Your task to perform on an android device: Check the weather Image 0: 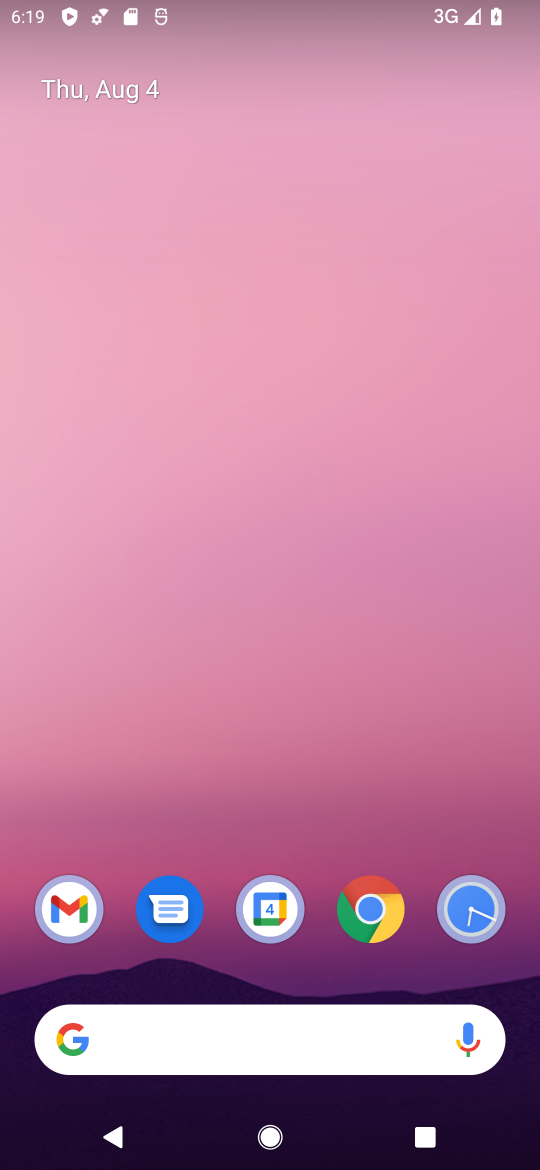
Step 0: drag from (389, 991) to (355, 42)
Your task to perform on an android device: Check the weather Image 1: 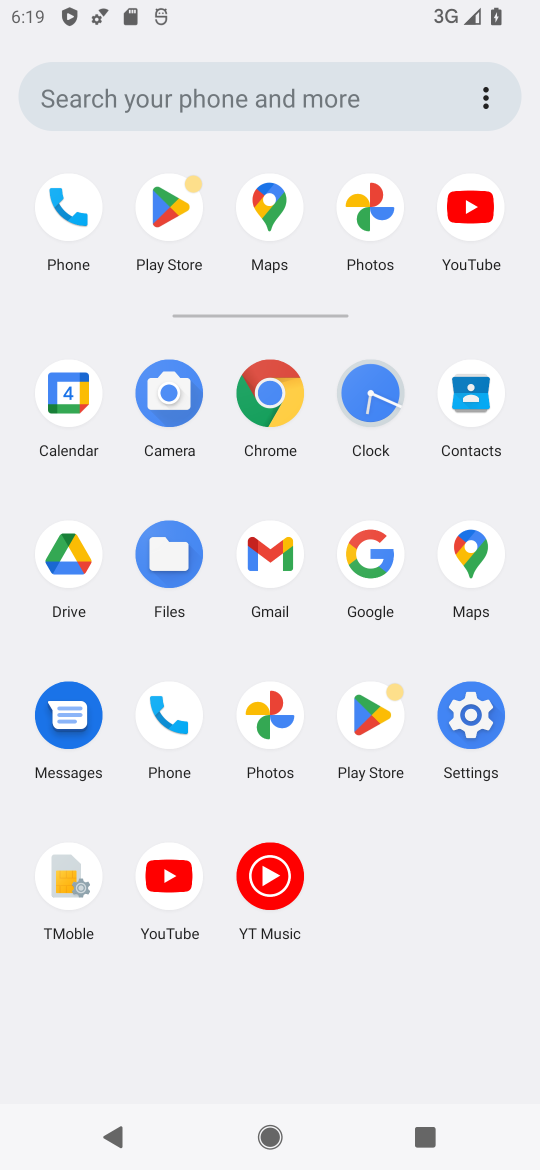
Step 1: click (370, 554)
Your task to perform on an android device: Check the weather Image 2: 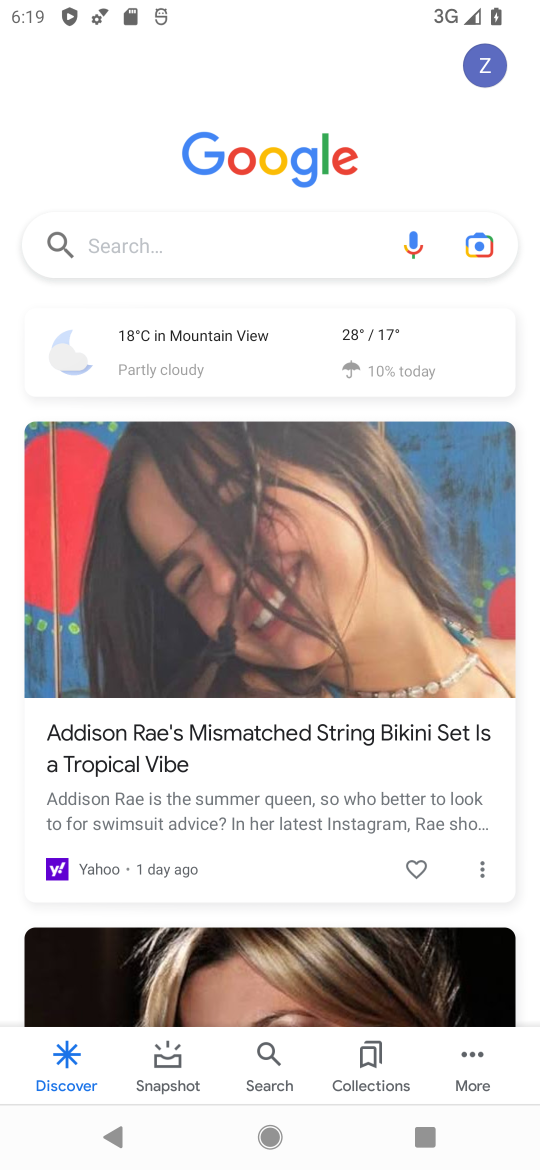
Step 2: drag from (396, 797) to (410, 384)
Your task to perform on an android device: Check the weather Image 3: 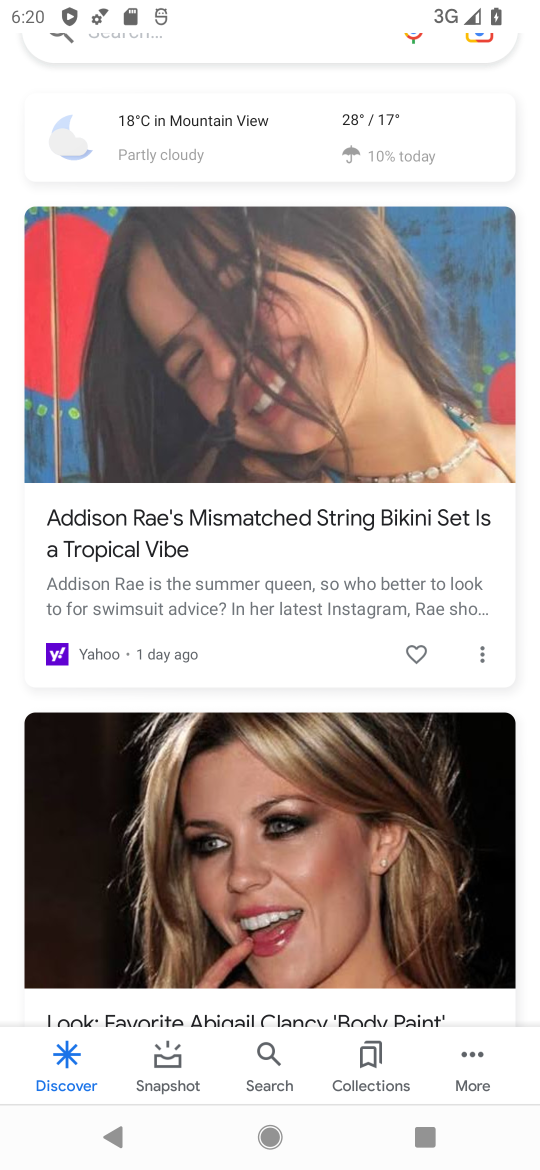
Step 3: drag from (372, 426) to (343, 928)
Your task to perform on an android device: Check the weather Image 4: 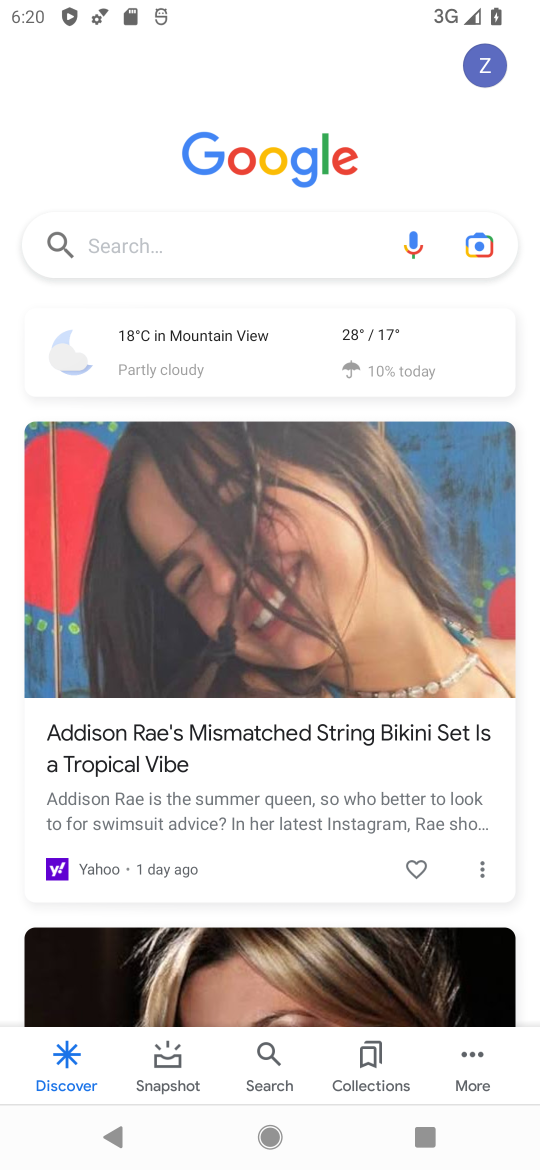
Step 4: click (237, 389)
Your task to perform on an android device: Check the weather Image 5: 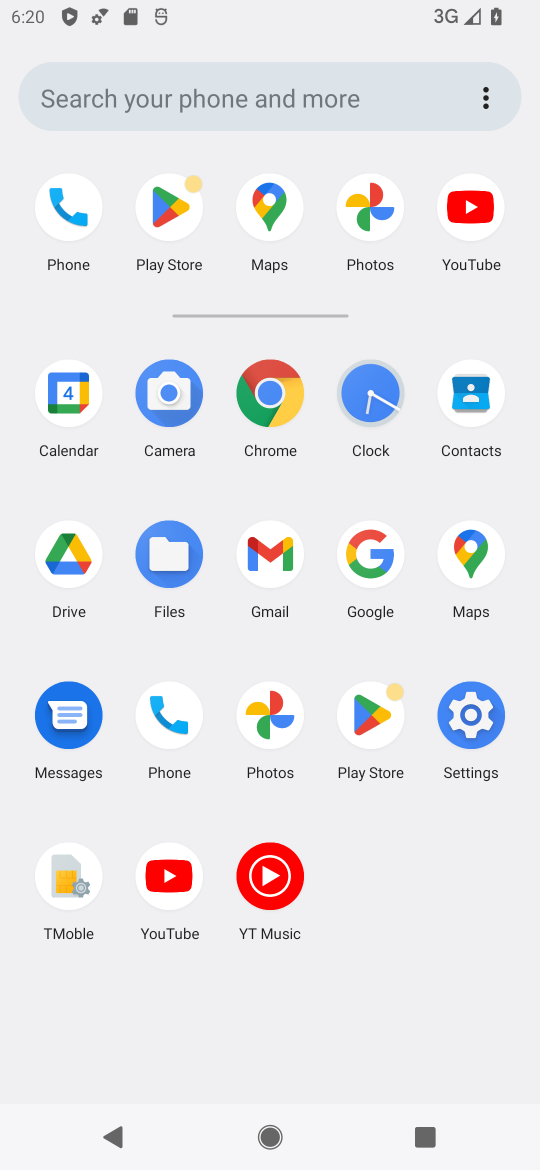
Step 5: click (287, 565)
Your task to perform on an android device: Check the weather Image 6: 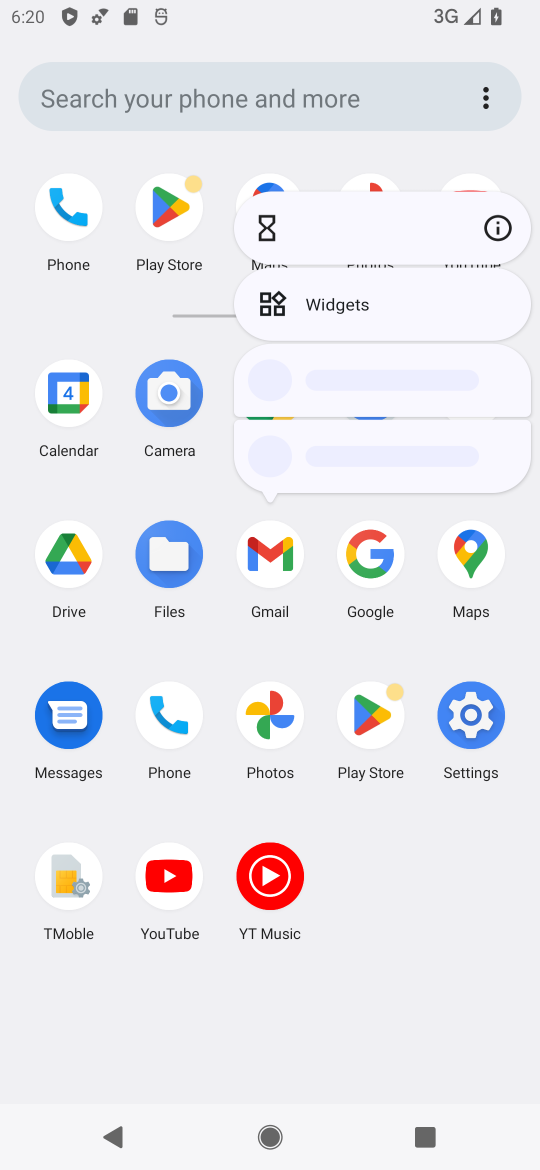
Step 6: click (342, 563)
Your task to perform on an android device: Check the weather Image 7: 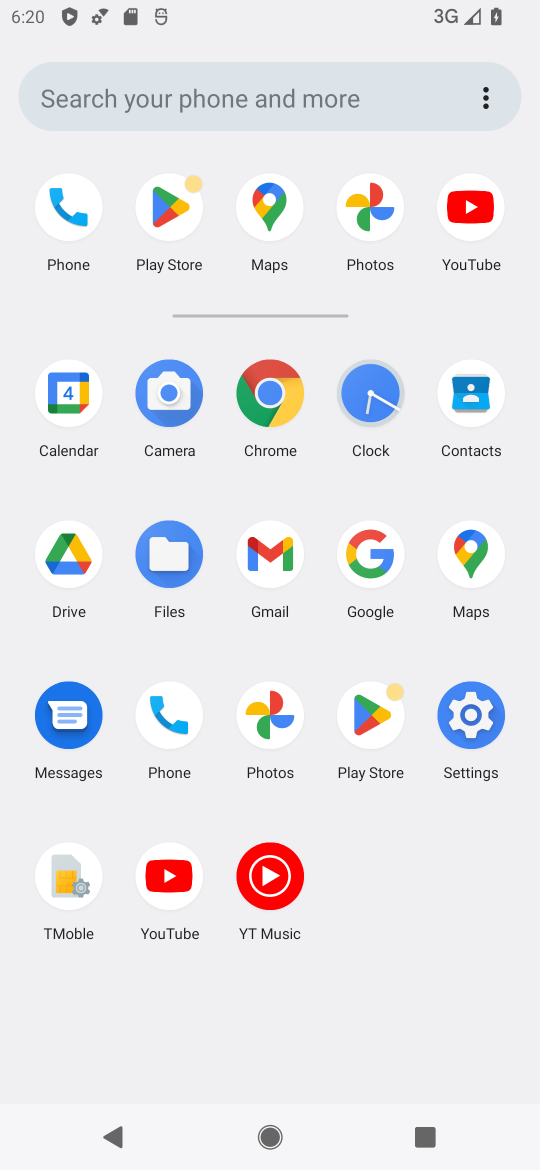
Step 7: click (358, 560)
Your task to perform on an android device: Check the weather Image 8: 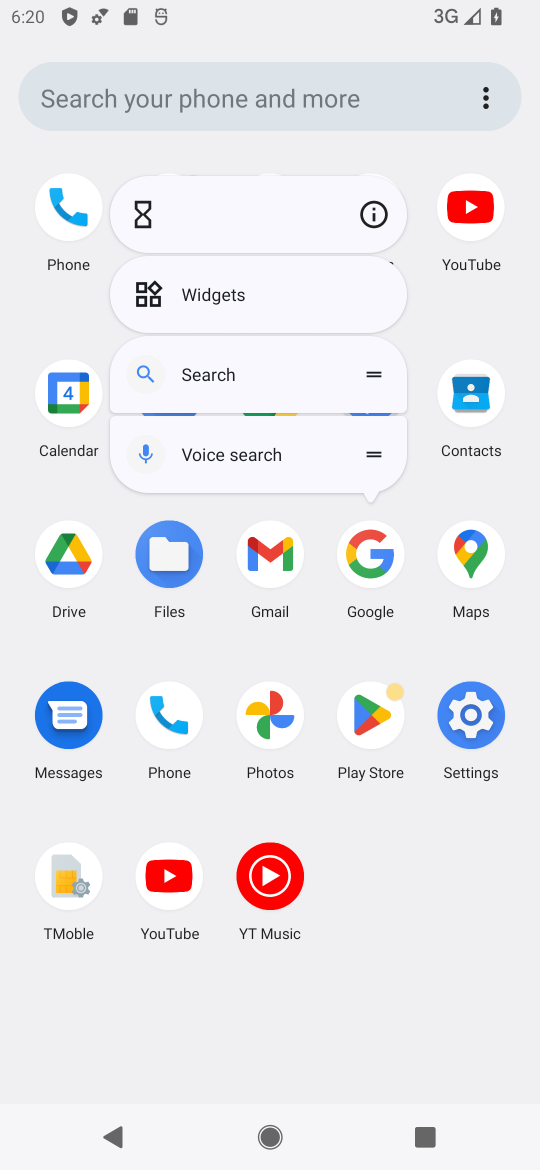
Step 8: click (358, 559)
Your task to perform on an android device: Check the weather Image 9: 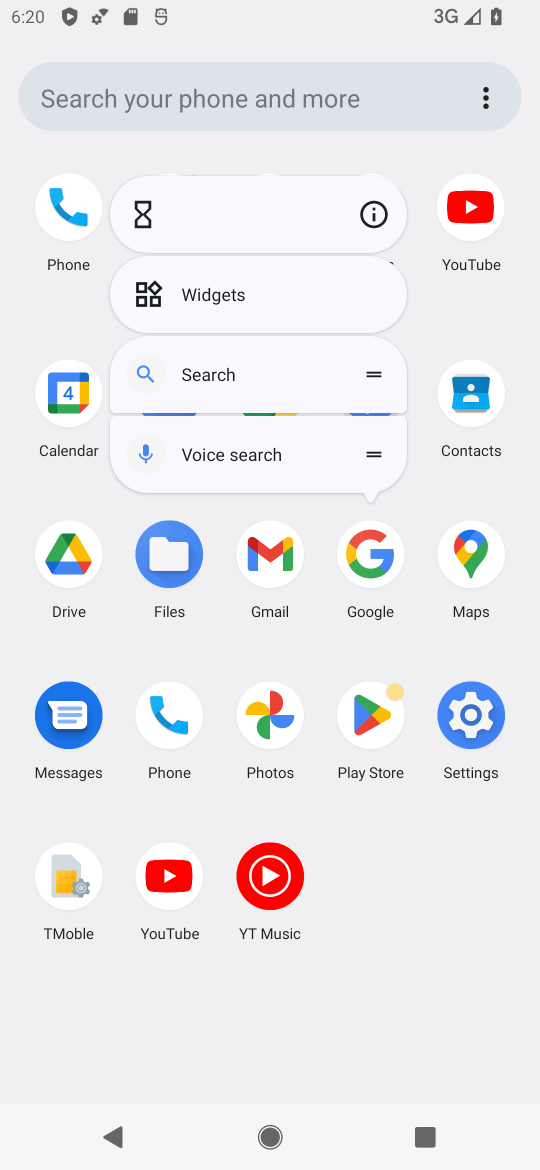
Step 9: click (360, 556)
Your task to perform on an android device: Check the weather Image 10: 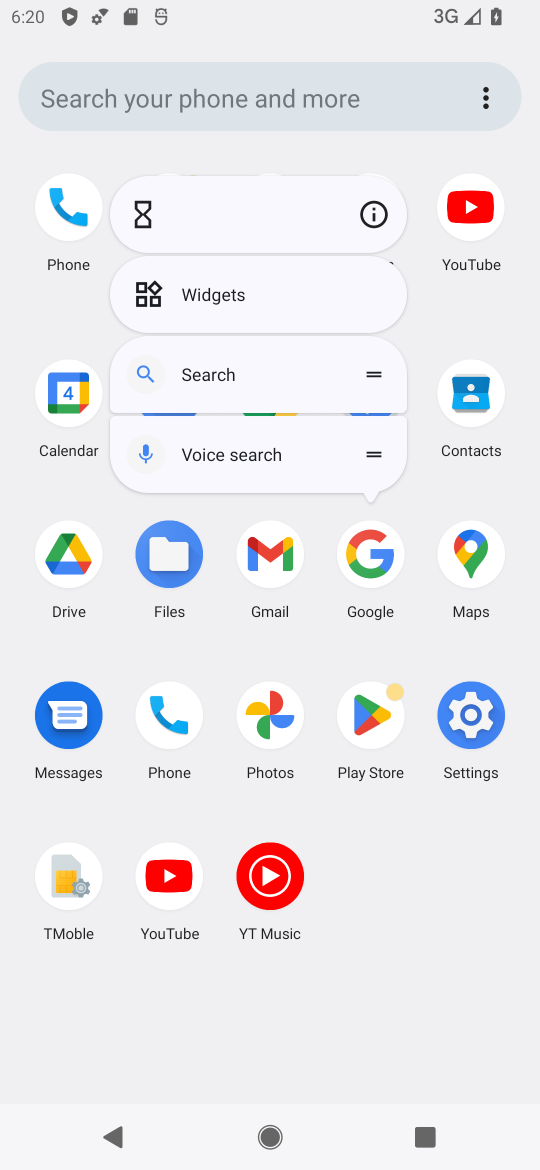
Step 10: click (389, 548)
Your task to perform on an android device: Check the weather Image 11: 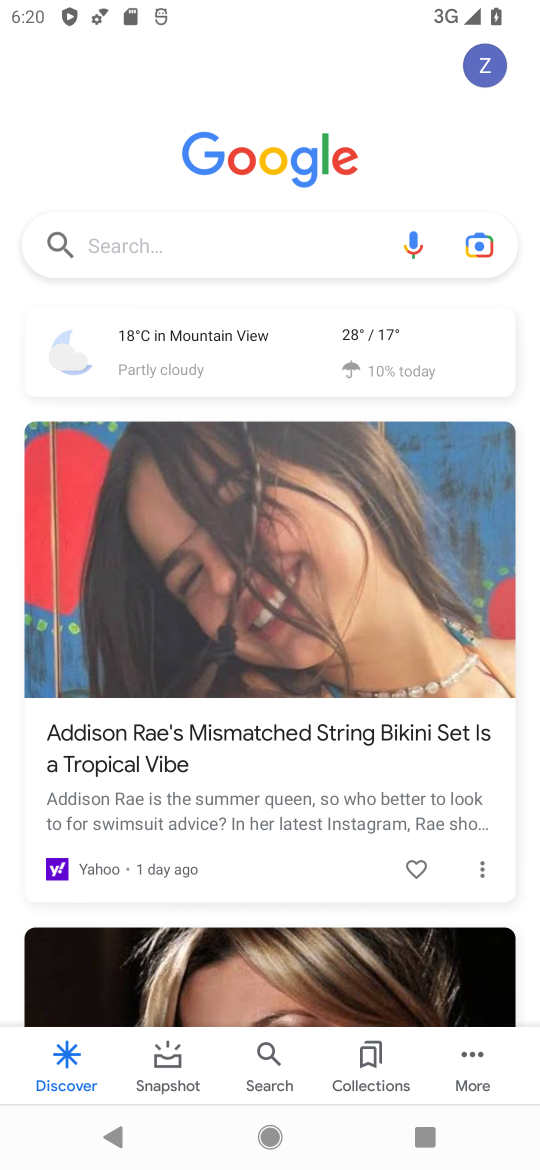
Step 11: click (281, 355)
Your task to perform on an android device: Check the weather Image 12: 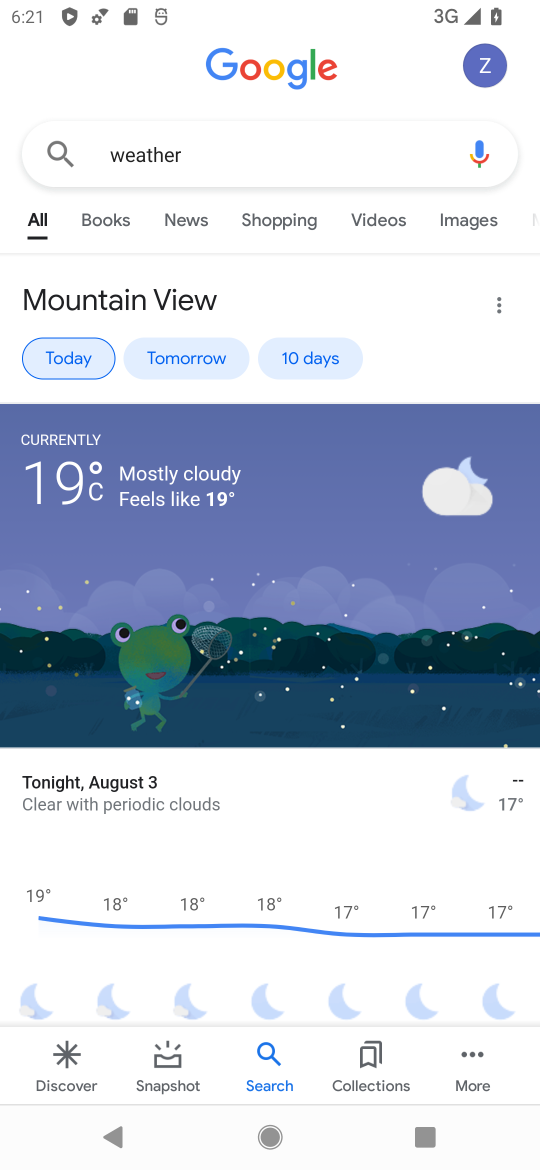
Step 12: task complete